Your task to perform on an android device: Search for pizza restaurants on Maps Image 0: 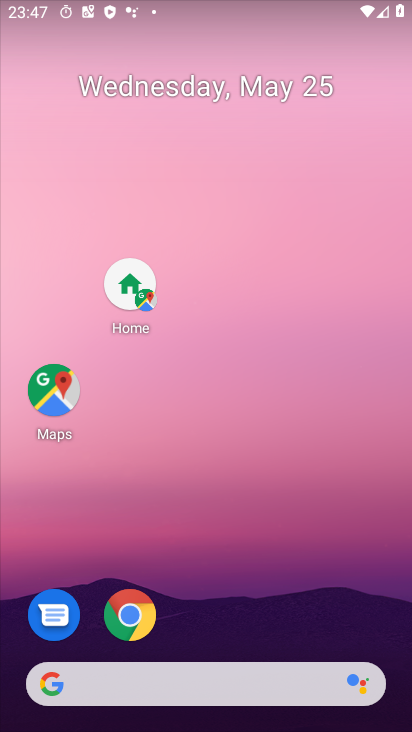
Step 0: press home button
Your task to perform on an android device: Search for pizza restaurants on Maps Image 1: 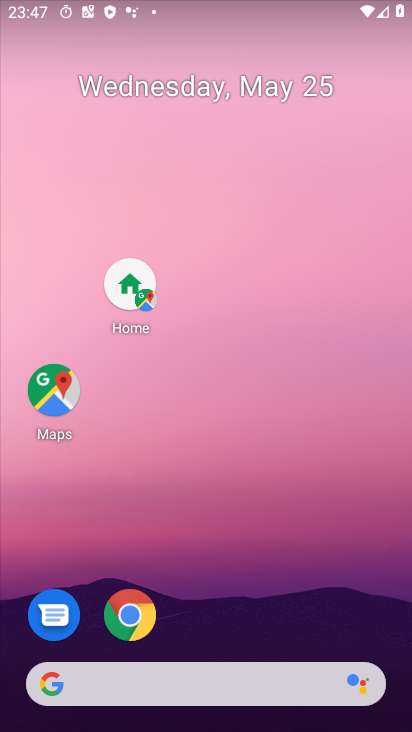
Step 1: click (48, 395)
Your task to perform on an android device: Search for pizza restaurants on Maps Image 2: 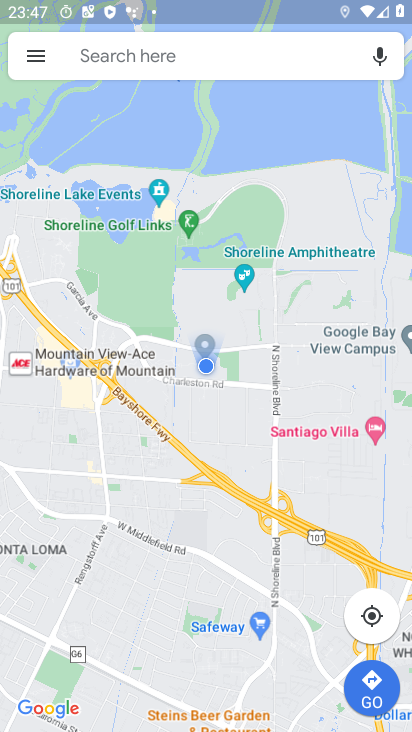
Step 2: click (186, 54)
Your task to perform on an android device: Search for pizza restaurants on Maps Image 3: 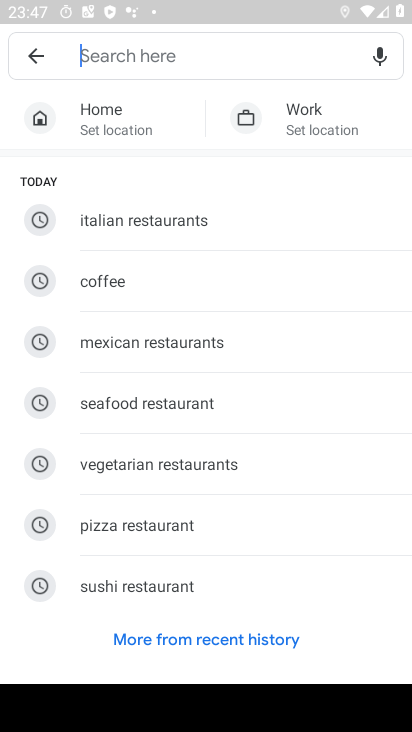
Step 3: click (140, 533)
Your task to perform on an android device: Search for pizza restaurants on Maps Image 4: 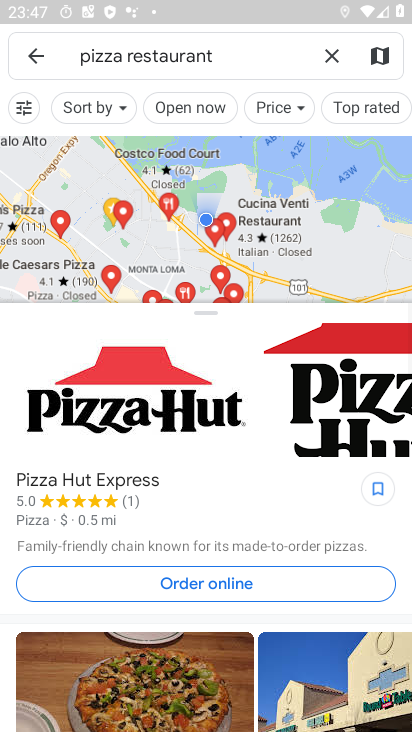
Step 4: task complete